Your task to perform on an android device: change notifications settings Image 0: 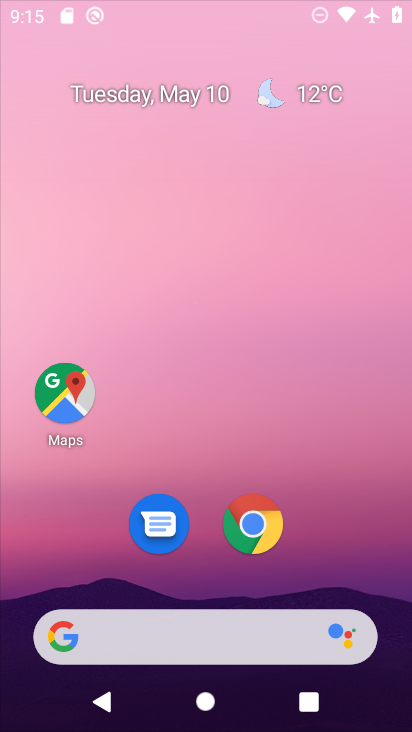
Step 0: drag from (336, 521) to (331, 164)
Your task to perform on an android device: change notifications settings Image 1: 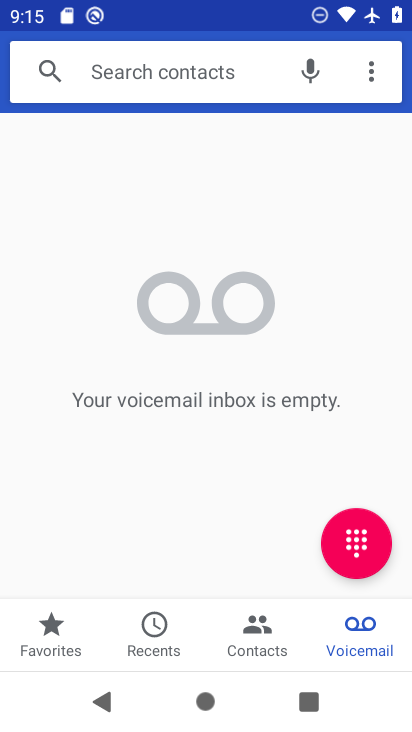
Step 1: press home button
Your task to perform on an android device: change notifications settings Image 2: 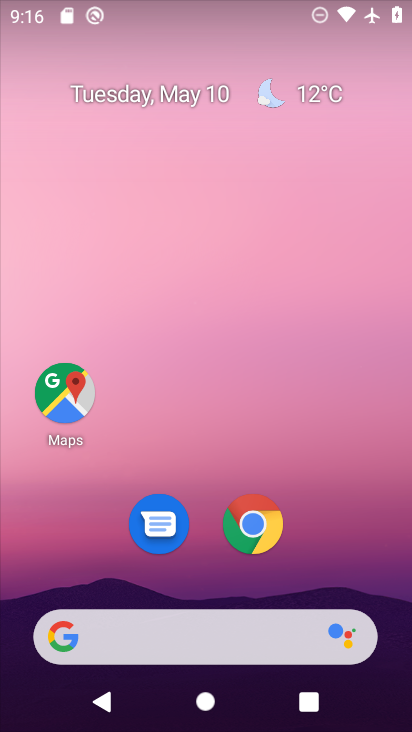
Step 2: drag from (312, 525) to (295, 51)
Your task to perform on an android device: change notifications settings Image 3: 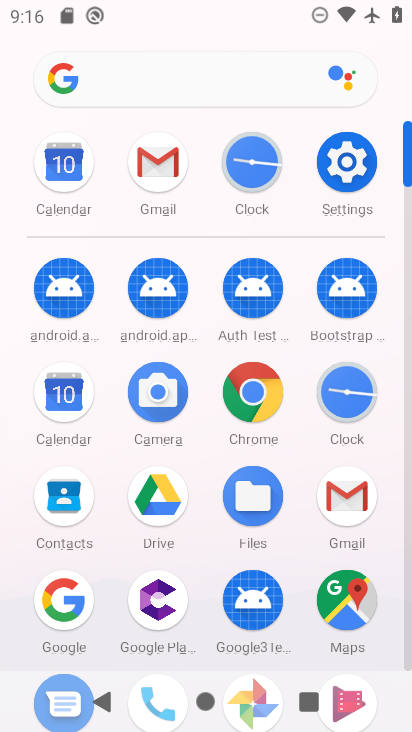
Step 3: click (337, 163)
Your task to perform on an android device: change notifications settings Image 4: 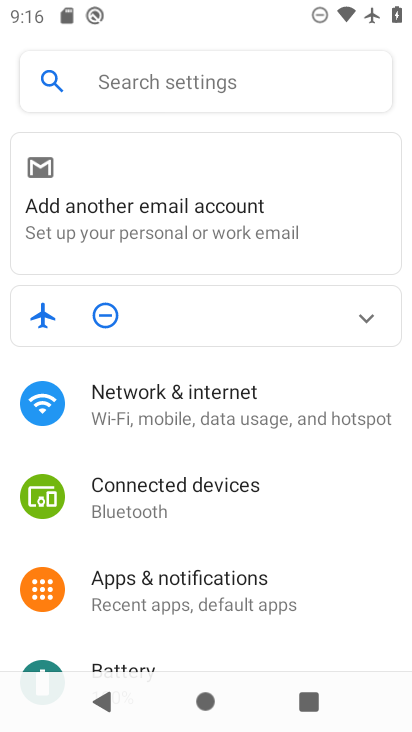
Step 4: click (209, 581)
Your task to perform on an android device: change notifications settings Image 5: 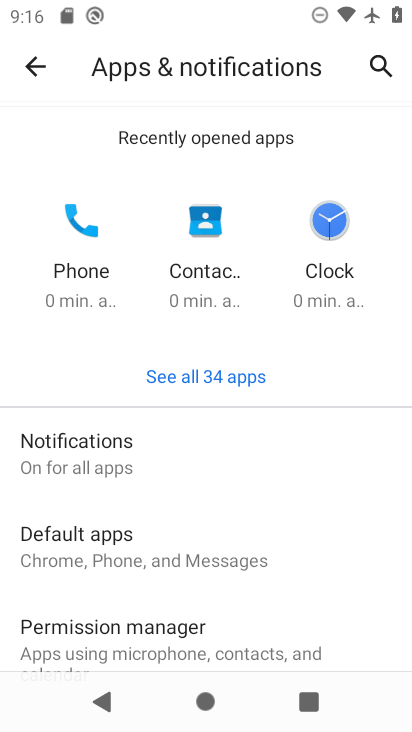
Step 5: click (106, 448)
Your task to perform on an android device: change notifications settings Image 6: 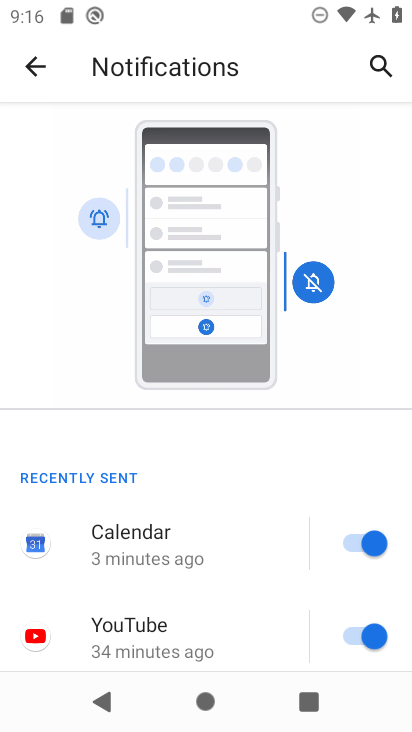
Step 6: drag from (258, 582) to (259, 109)
Your task to perform on an android device: change notifications settings Image 7: 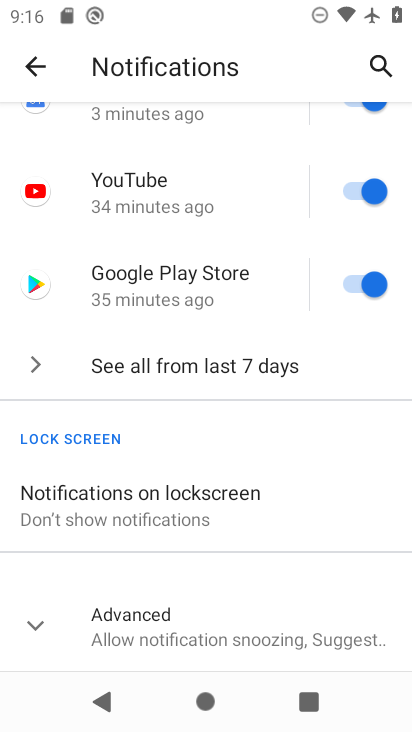
Step 7: click (244, 343)
Your task to perform on an android device: change notifications settings Image 8: 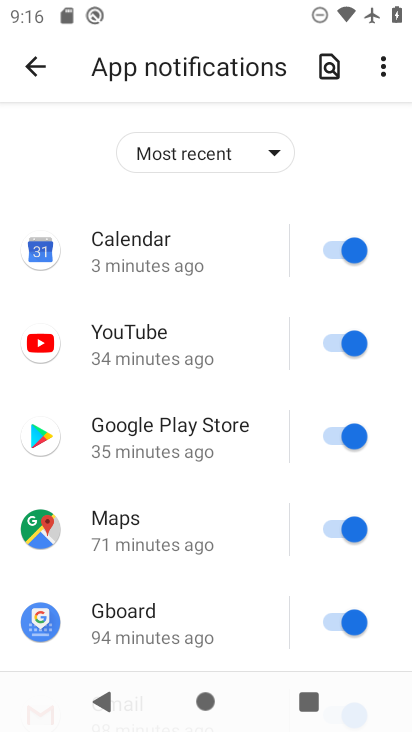
Step 8: drag from (208, 546) to (205, 146)
Your task to perform on an android device: change notifications settings Image 9: 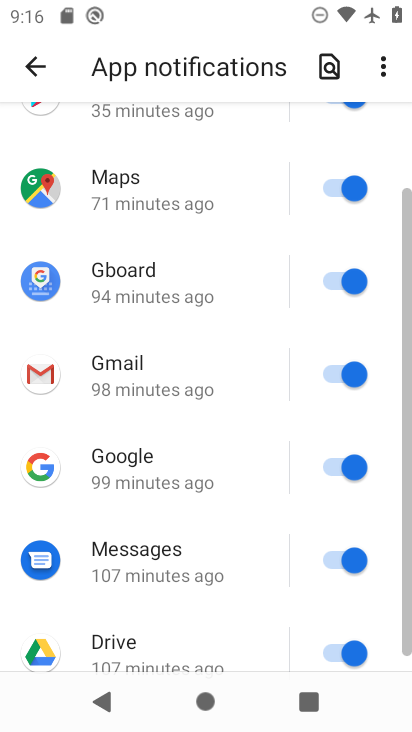
Step 9: drag from (226, 222) to (264, 575)
Your task to perform on an android device: change notifications settings Image 10: 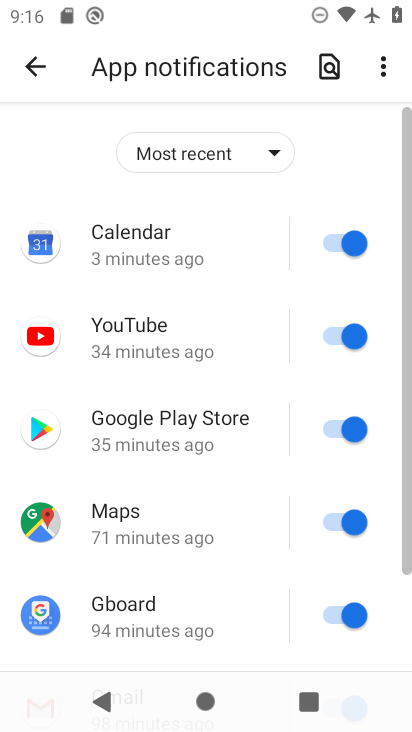
Step 10: click (335, 236)
Your task to perform on an android device: change notifications settings Image 11: 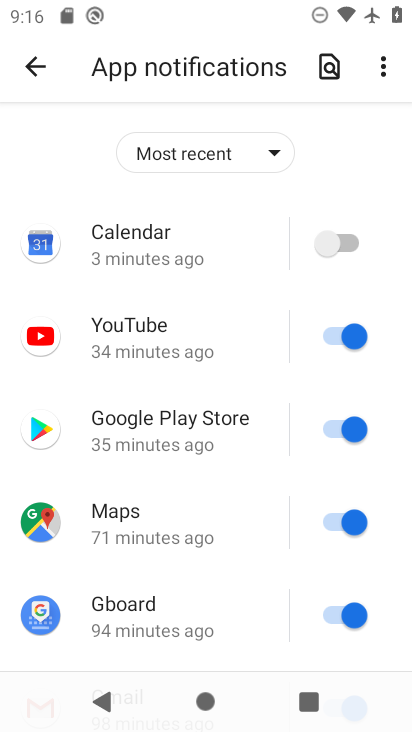
Step 11: click (336, 328)
Your task to perform on an android device: change notifications settings Image 12: 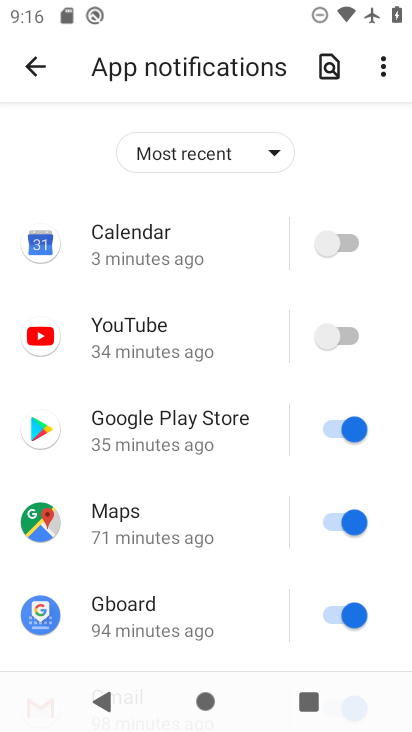
Step 12: click (340, 429)
Your task to perform on an android device: change notifications settings Image 13: 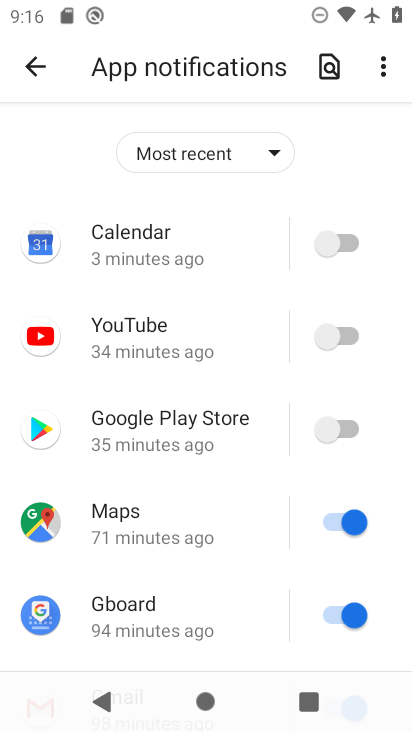
Step 13: click (337, 518)
Your task to perform on an android device: change notifications settings Image 14: 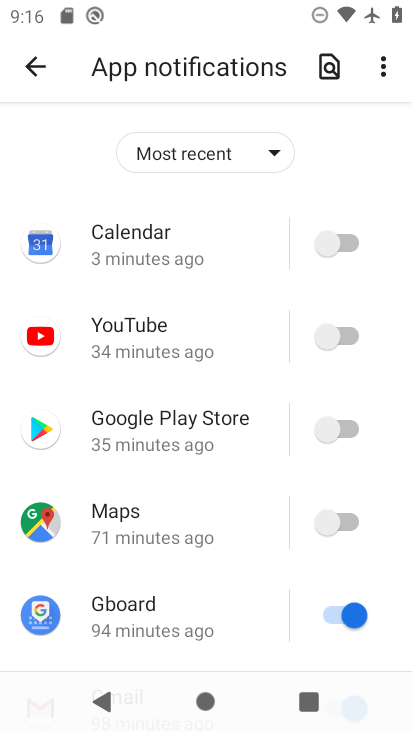
Step 14: click (342, 618)
Your task to perform on an android device: change notifications settings Image 15: 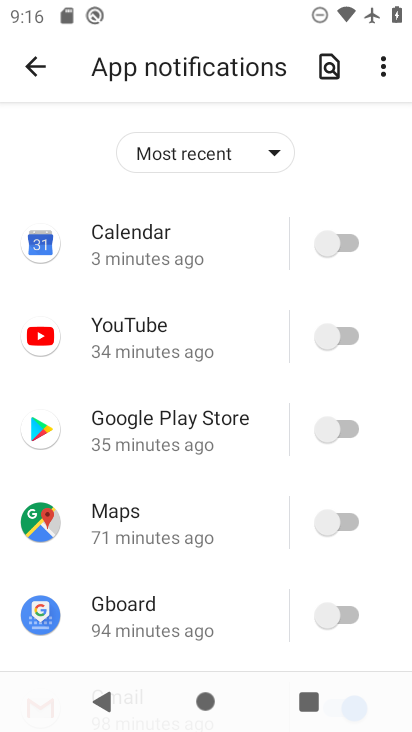
Step 15: drag from (206, 594) to (174, 88)
Your task to perform on an android device: change notifications settings Image 16: 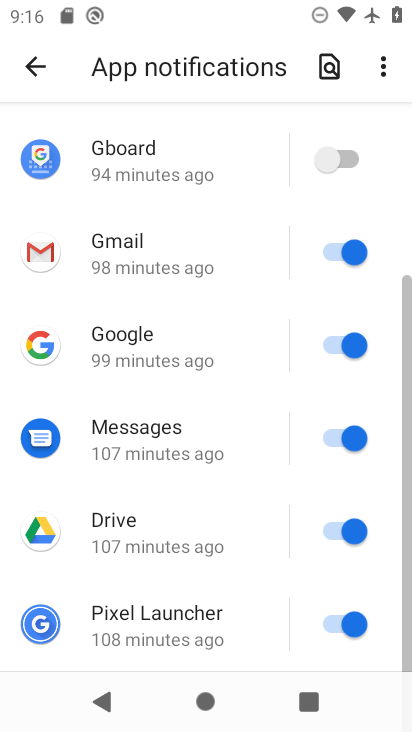
Step 16: click (321, 241)
Your task to perform on an android device: change notifications settings Image 17: 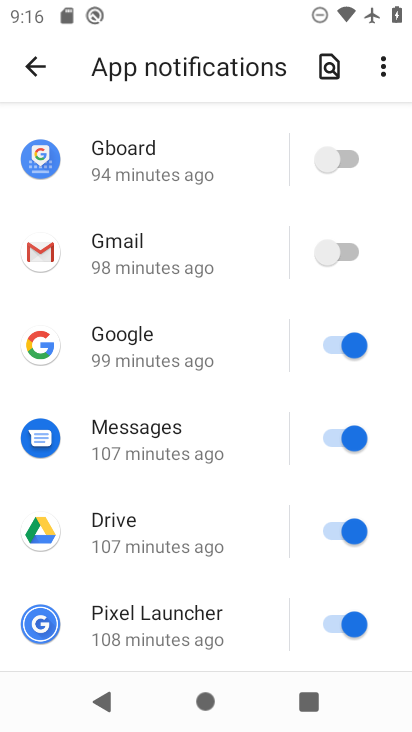
Step 17: click (341, 340)
Your task to perform on an android device: change notifications settings Image 18: 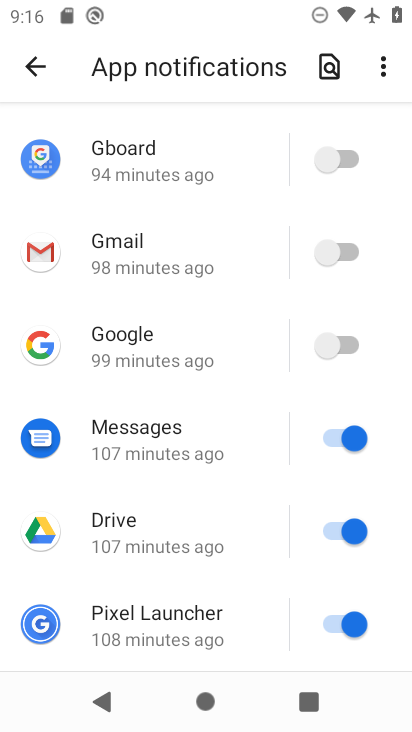
Step 18: click (341, 439)
Your task to perform on an android device: change notifications settings Image 19: 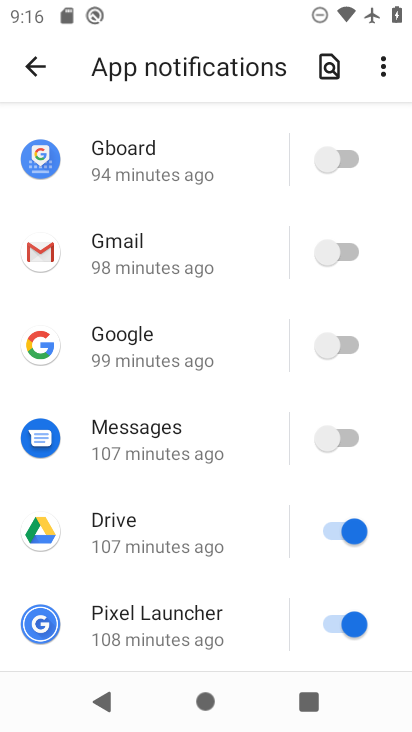
Step 19: click (346, 541)
Your task to perform on an android device: change notifications settings Image 20: 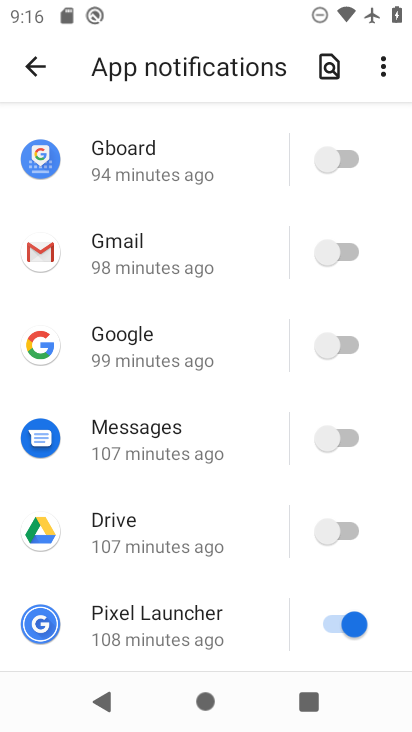
Step 20: drag from (195, 490) to (151, 263)
Your task to perform on an android device: change notifications settings Image 21: 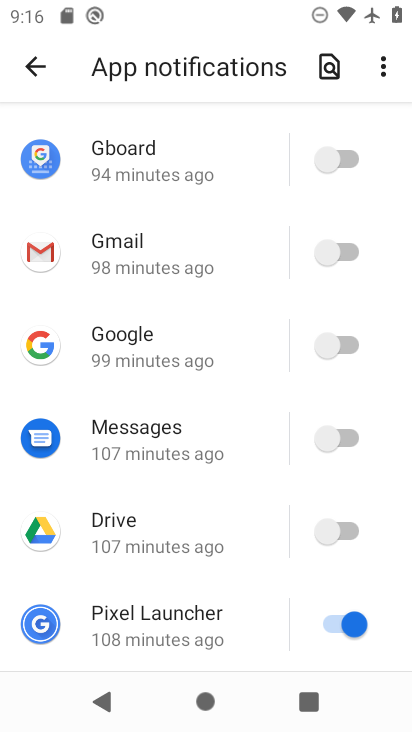
Step 21: click (340, 629)
Your task to perform on an android device: change notifications settings Image 22: 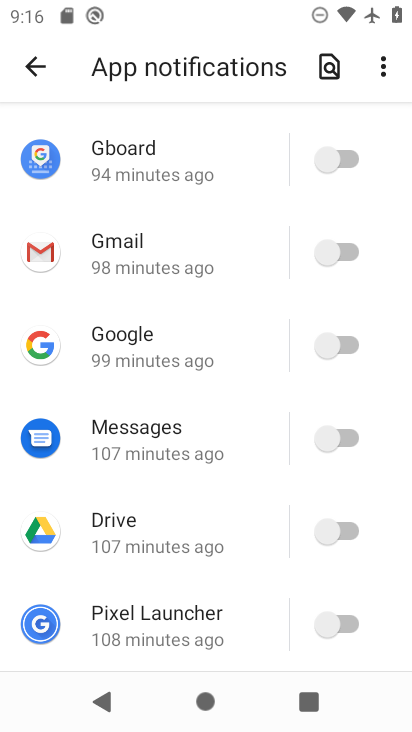
Step 22: task complete